Your task to perform on an android device: open chrome and create a bookmark for the current page Image 0: 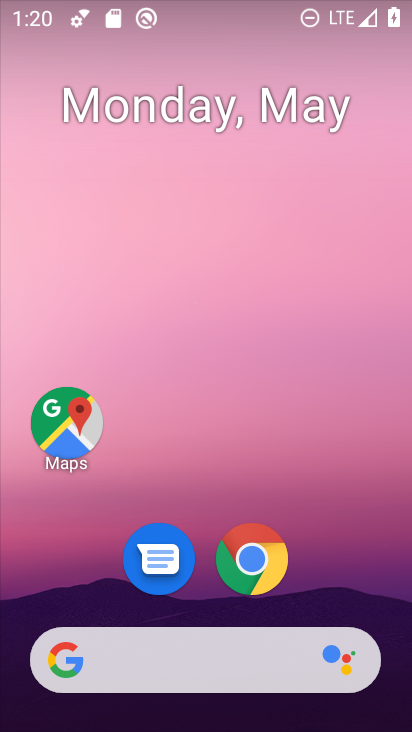
Step 0: click (244, 555)
Your task to perform on an android device: open chrome and create a bookmark for the current page Image 1: 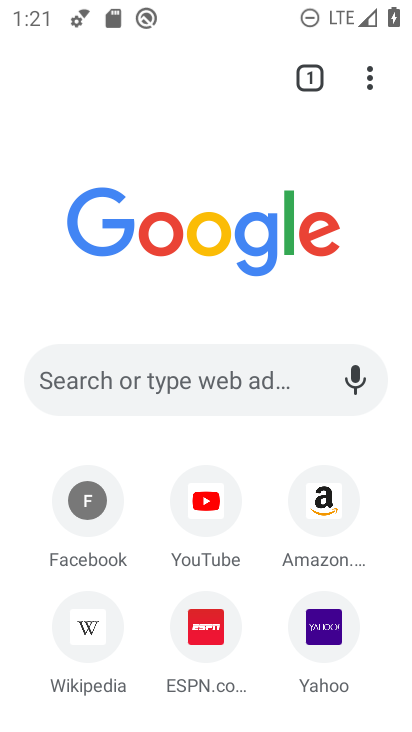
Step 1: click (374, 64)
Your task to perform on an android device: open chrome and create a bookmark for the current page Image 2: 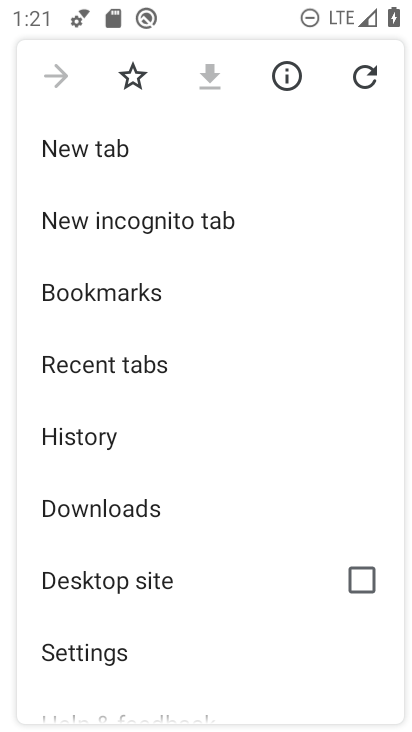
Step 2: click (122, 60)
Your task to perform on an android device: open chrome and create a bookmark for the current page Image 3: 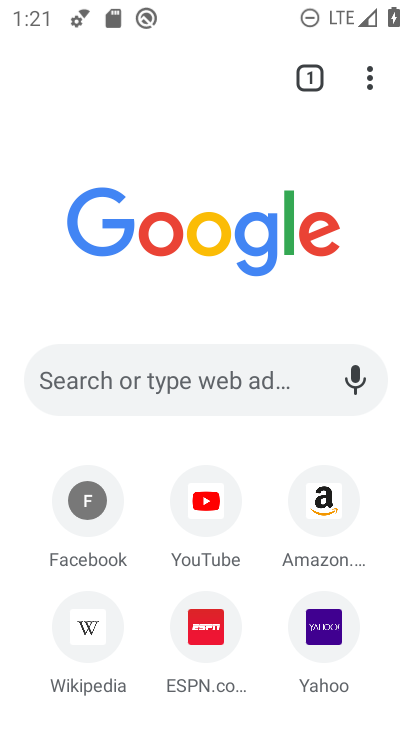
Step 3: task complete